Your task to perform on an android device: Open my contact list Image 0: 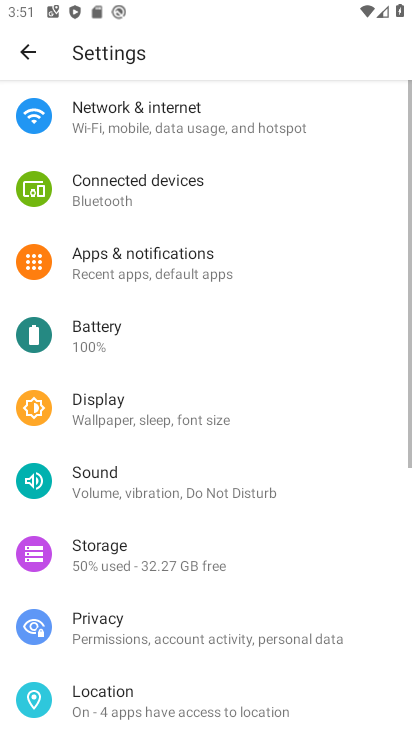
Step 0: press home button
Your task to perform on an android device: Open my contact list Image 1: 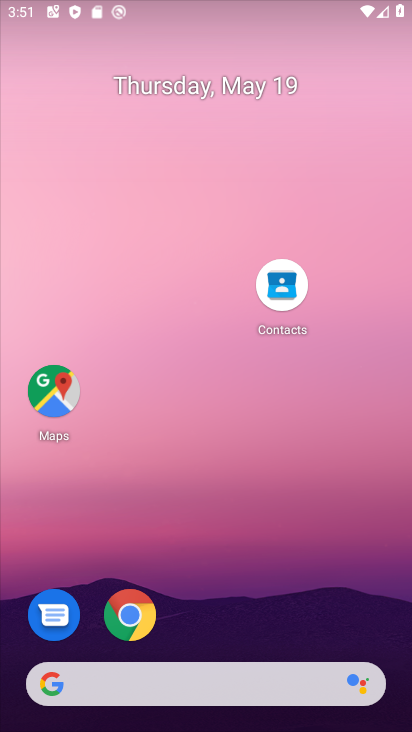
Step 1: drag from (173, 566) to (229, 139)
Your task to perform on an android device: Open my contact list Image 2: 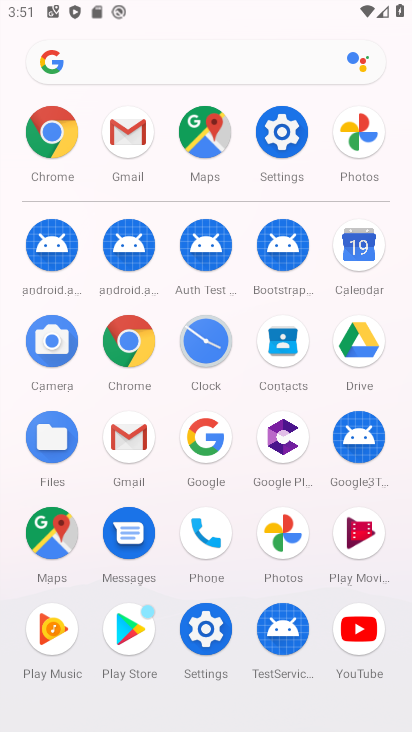
Step 2: click (287, 353)
Your task to perform on an android device: Open my contact list Image 3: 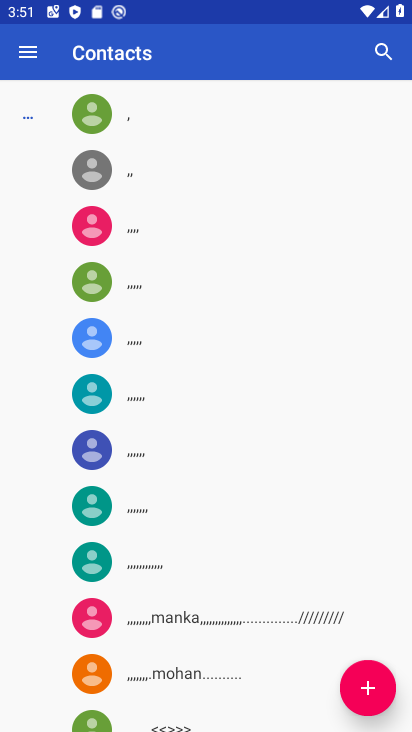
Step 3: click (353, 698)
Your task to perform on an android device: Open my contact list Image 4: 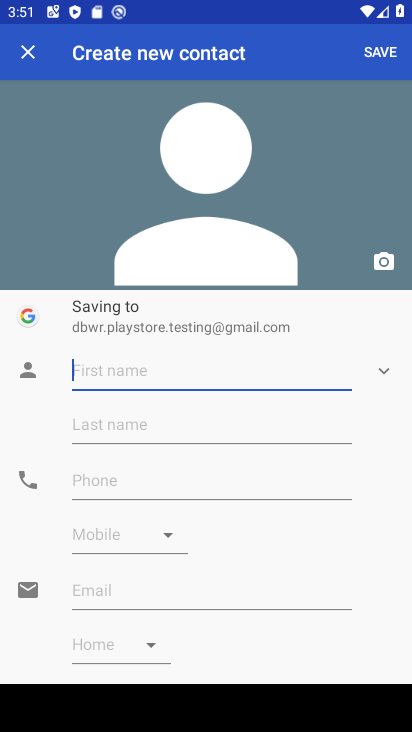
Step 4: task complete